Your task to perform on an android device: open the mobile data screen to see how much data has been used Image 0: 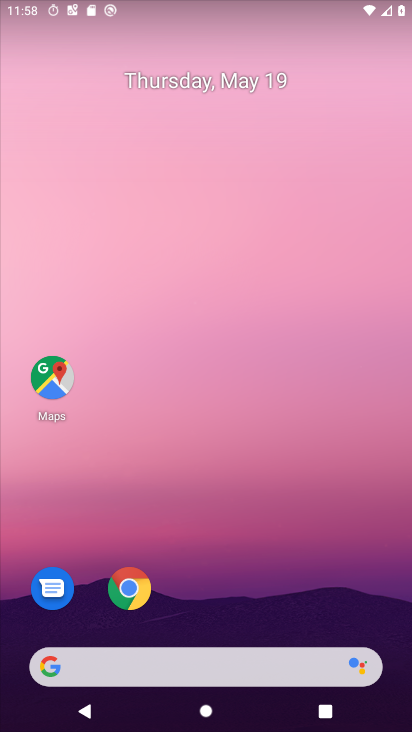
Step 0: press home button
Your task to perform on an android device: open the mobile data screen to see how much data has been used Image 1: 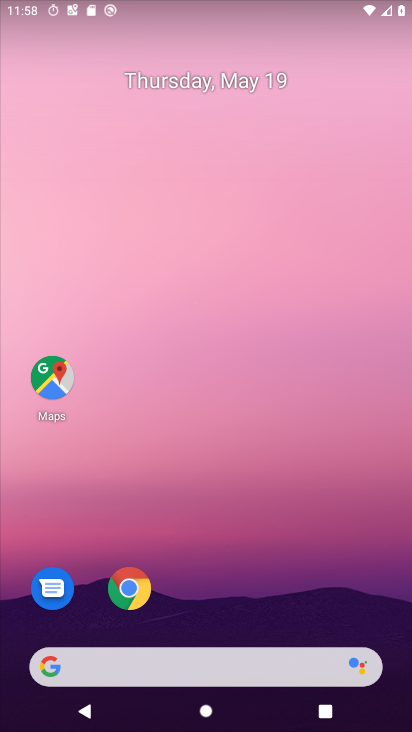
Step 1: drag from (173, 672) to (308, 107)
Your task to perform on an android device: open the mobile data screen to see how much data has been used Image 2: 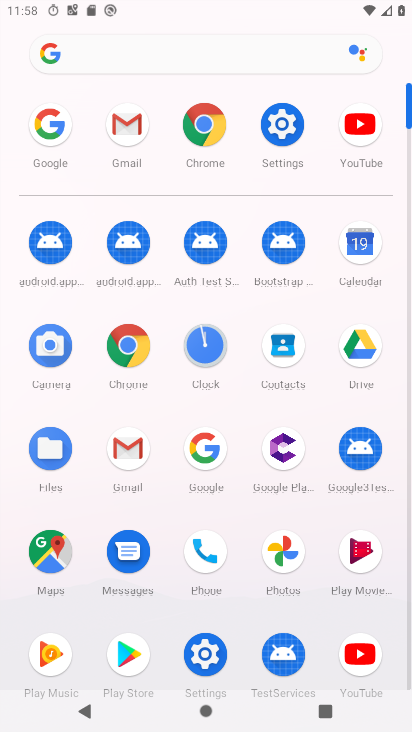
Step 2: click (287, 126)
Your task to perform on an android device: open the mobile data screen to see how much data has been used Image 3: 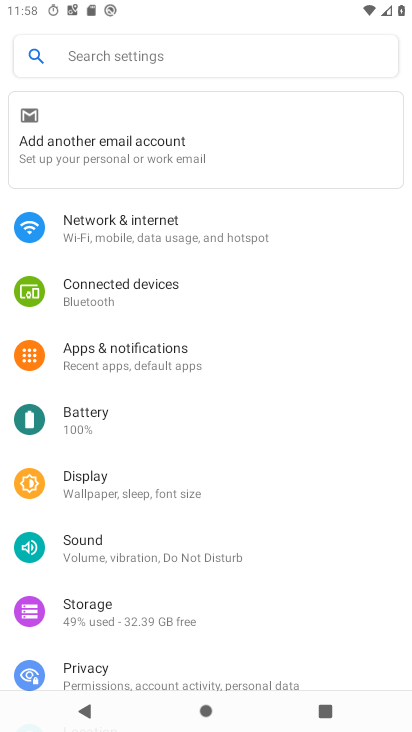
Step 3: click (175, 224)
Your task to perform on an android device: open the mobile data screen to see how much data has been used Image 4: 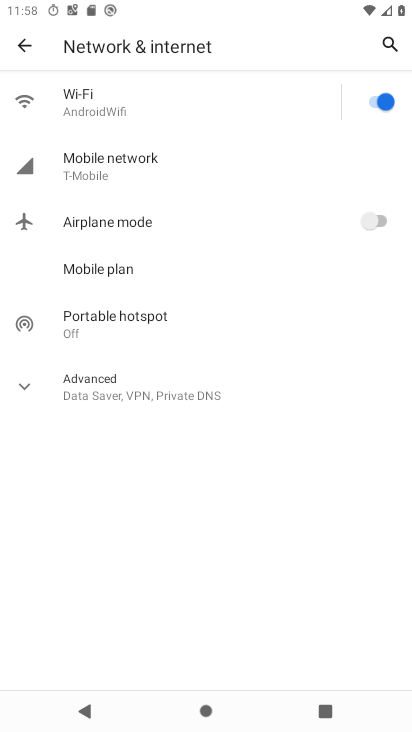
Step 4: click (136, 165)
Your task to perform on an android device: open the mobile data screen to see how much data has been used Image 5: 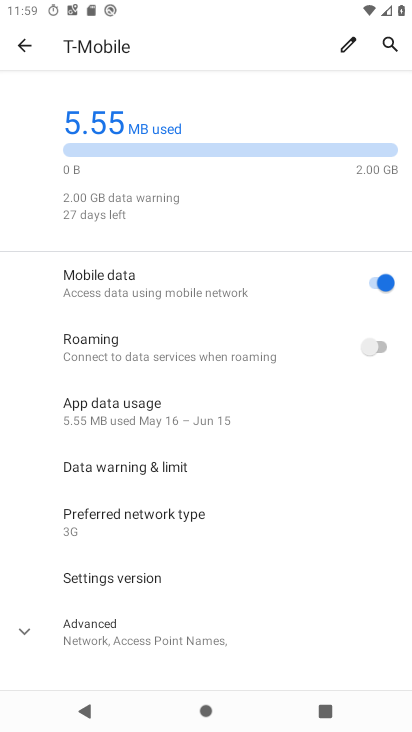
Step 5: task complete